Your task to perform on an android device: Go to Reddit.com Image 0: 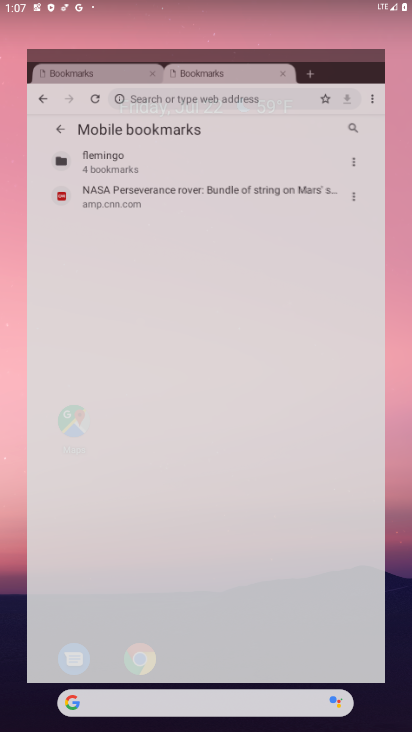
Step 0: drag from (243, 636) to (359, 6)
Your task to perform on an android device: Go to Reddit.com Image 1: 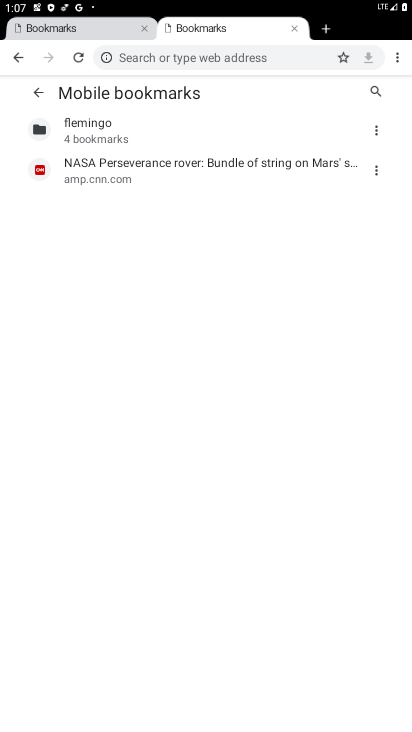
Step 1: press home button
Your task to perform on an android device: Go to Reddit.com Image 2: 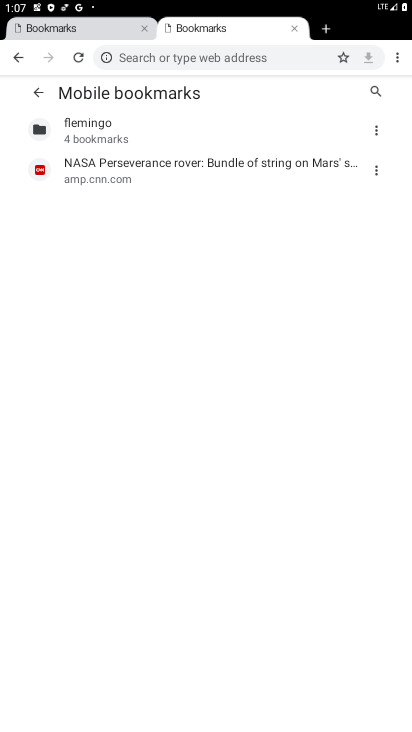
Step 2: drag from (359, 6) to (407, 131)
Your task to perform on an android device: Go to Reddit.com Image 3: 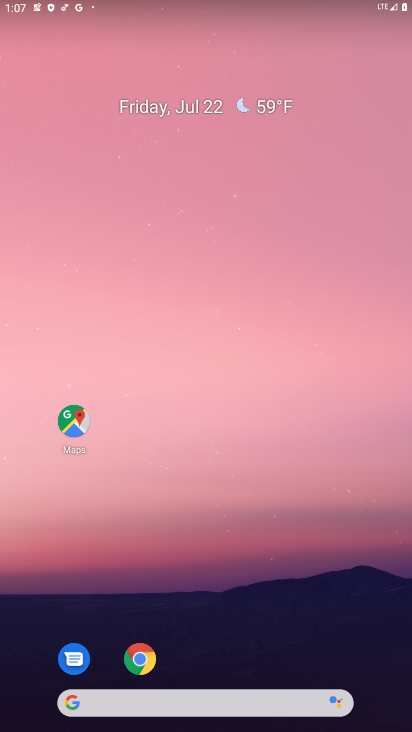
Step 3: drag from (289, 625) to (309, 195)
Your task to perform on an android device: Go to Reddit.com Image 4: 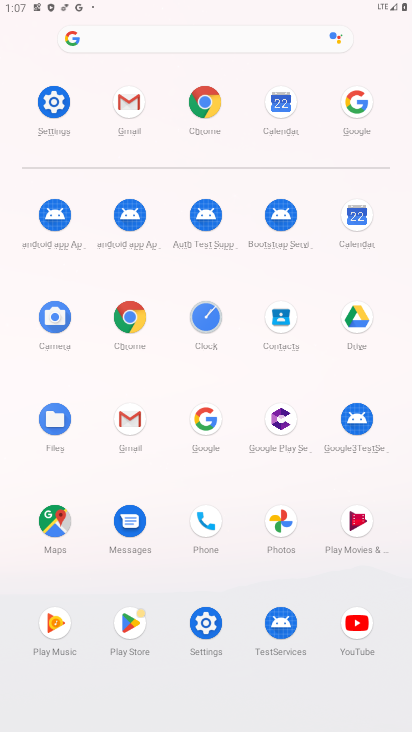
Step 4: click (212, 100)
Your task to perform on an android device: Go to Reddit.com Image 5: 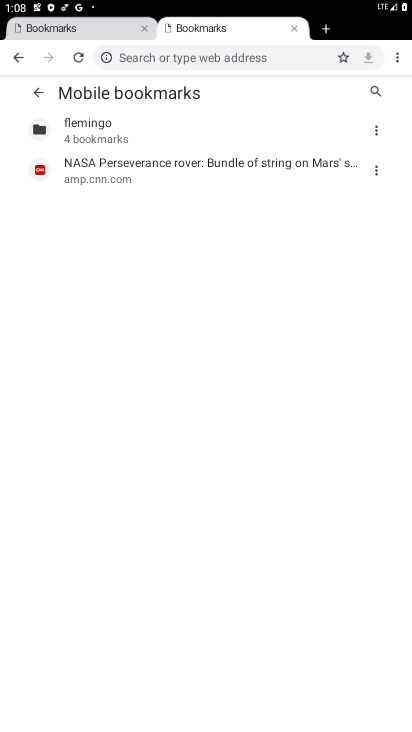
Step 5: click (334, 35)
Your task to perform on an android device: Go to Reddit.com Image 6: 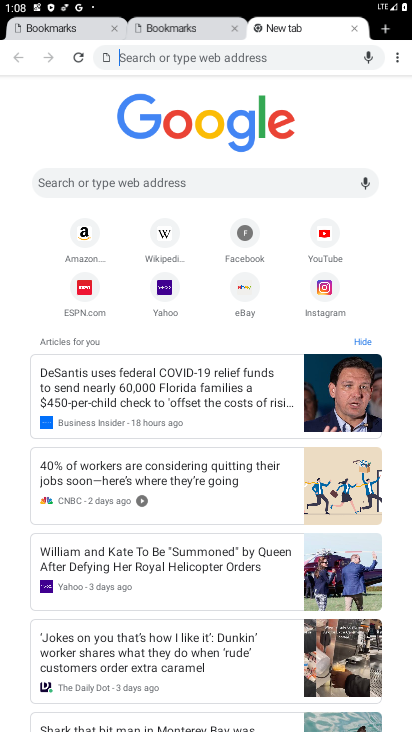
Step 6: click (159, 167)
Your task to perform on an android device: Go to Reddit.com Image 7: 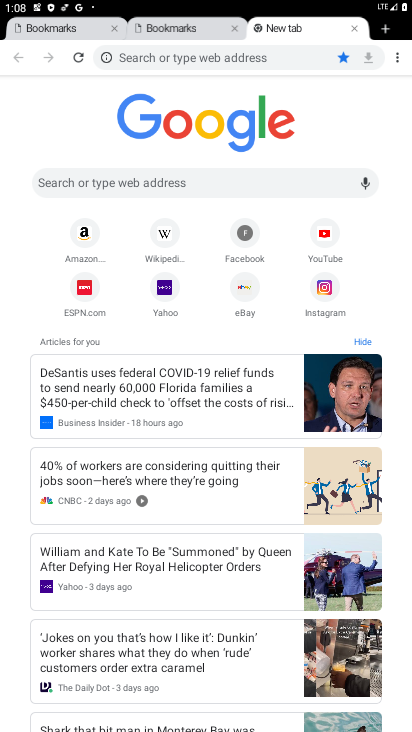
Step 7: click (241, 172)
Your task to perform on an android device: Go to Reddit.com Image 8: 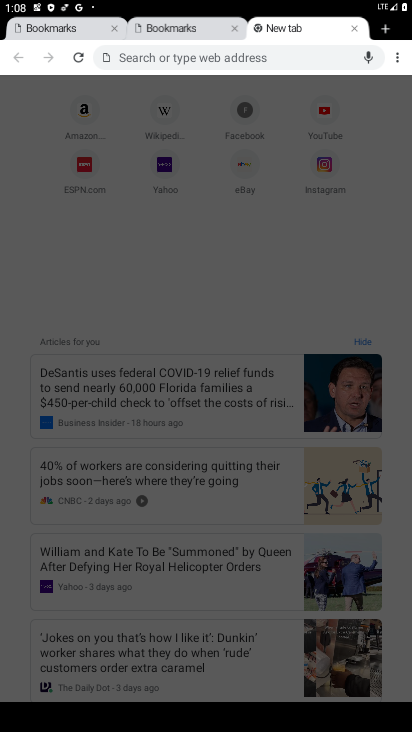
Step 8: type "reddit.com"
Your task to perform on an android device: Go to Reddit.com Image 9: 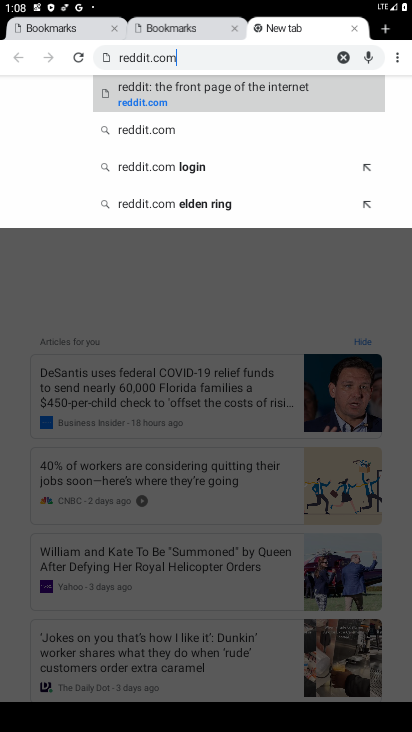
Step 9: click (142, 96)
Your task to perform on an android device: Go to Reddit.com Image 10: 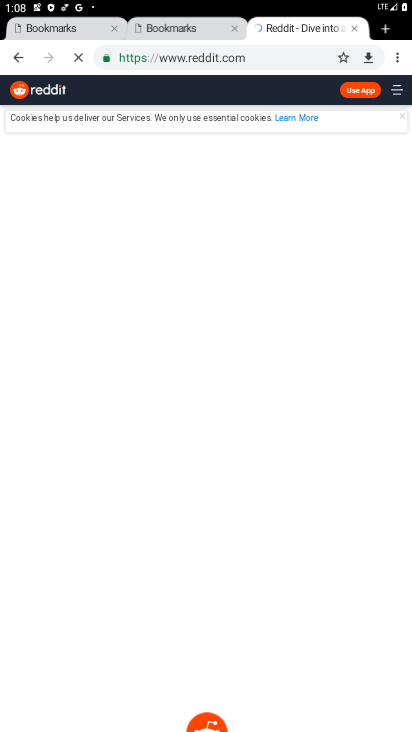
Step 10: click (238, 27)
Your task to perform on an android device: Go to Reddit.com Image 11: 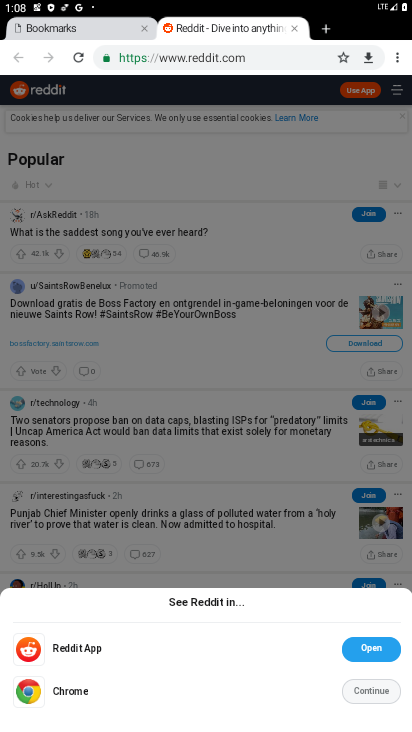
Step 11: task complete